Your task to perform on an android device: Set the phone to "Do not disturb". Image 0: 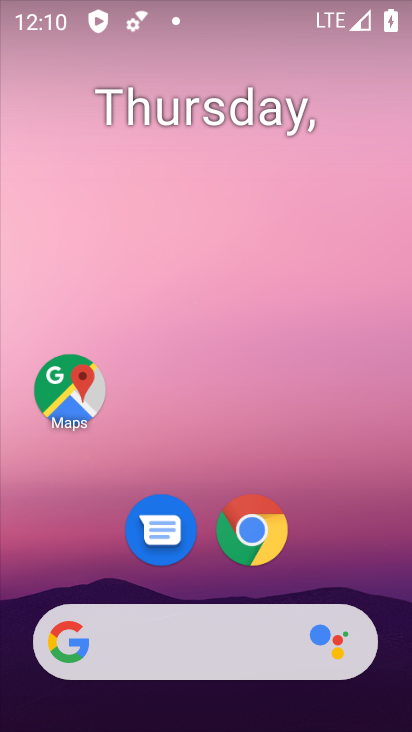
Step 0: drag from (195, 662) to (185, 235)
Your task to perform on an android device: Set the phone to "Do not disturb". Image 1: 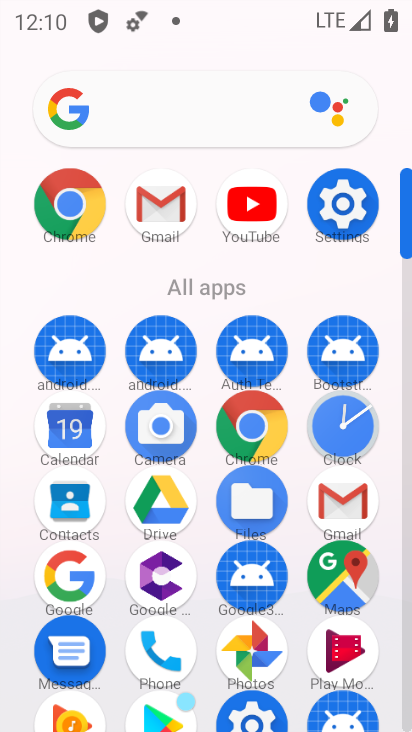
Step 1: click (339, 219)
Your task to perform on an android device: Set the phone to "Do not disturb". Image 2: 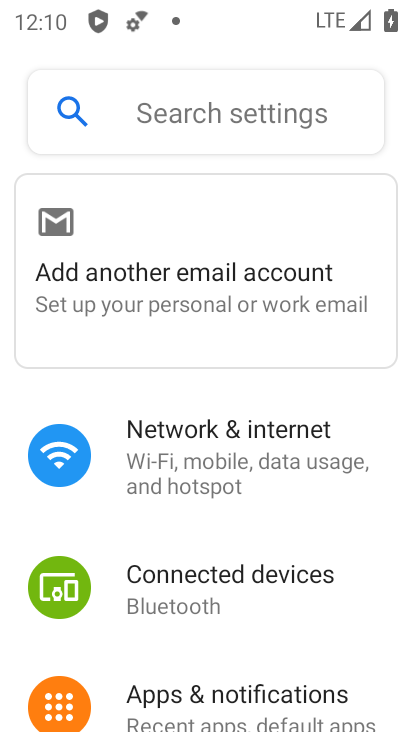
Step 2: drag from (175, 637) to (204, 73)
Your task to perform on an android device: Set the phone to "Do not disturb". Image 3: 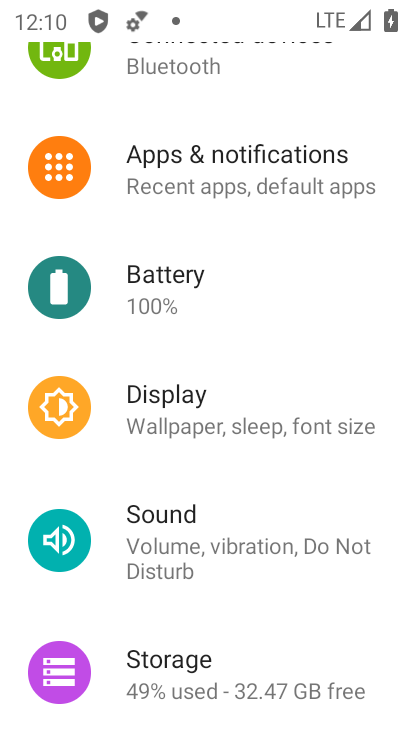
Step 3: click (176, 537)
Your task to perform on an android device: Set the phone to "Do not disturb". Image 4: 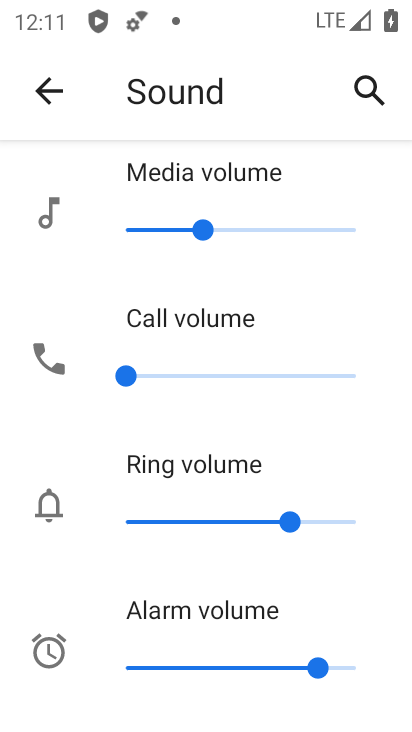
Step 4: drag from (225, 633) to (239, 178)
Your task to perform on an android device: Set the phone to "Do not disturb". Image 5: 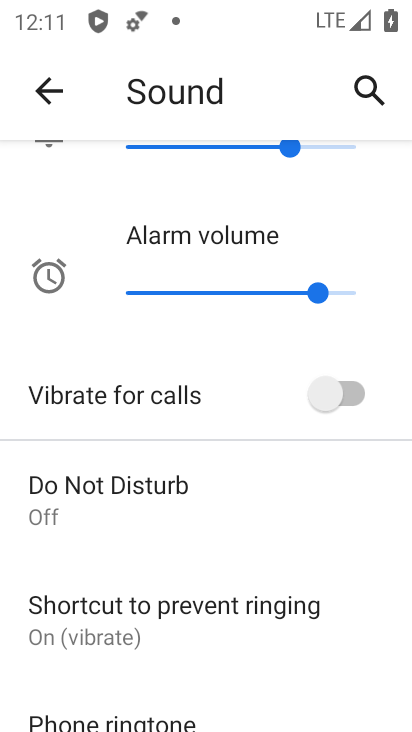
Step 5: click (163, 521)
Your task to perform on an android device: Set the phone to "Do not disturb". Image 6: 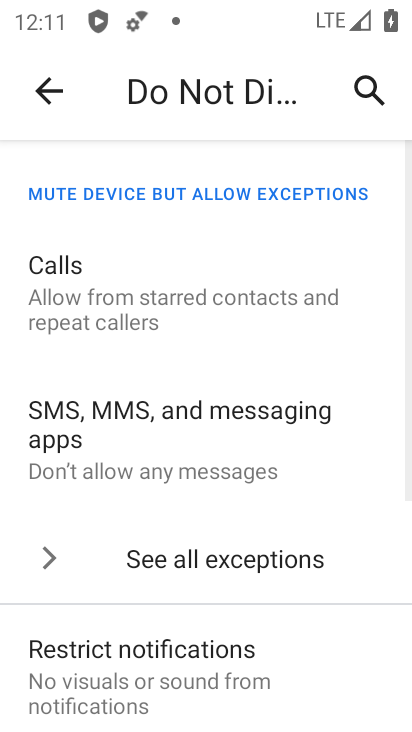
Step 6: drag from (222, 638) to (294, 8)
Your task to perform on an android device: Set the phone to "Do not disturb". Image 7: 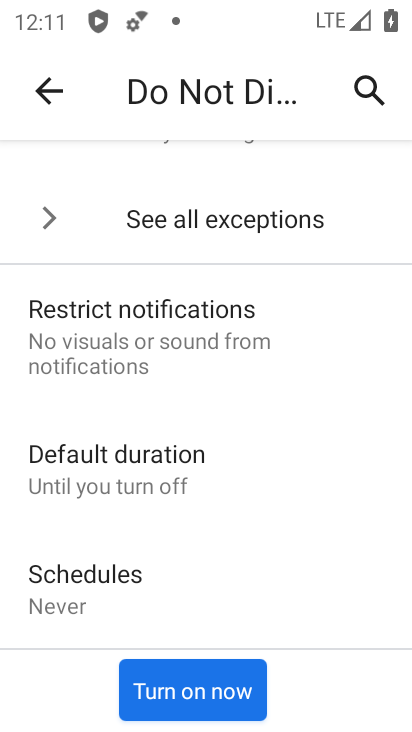
Step 7: click (191, 677)
Your task to perform on an android device: Set the phone to "Do not disturb". Image 8: 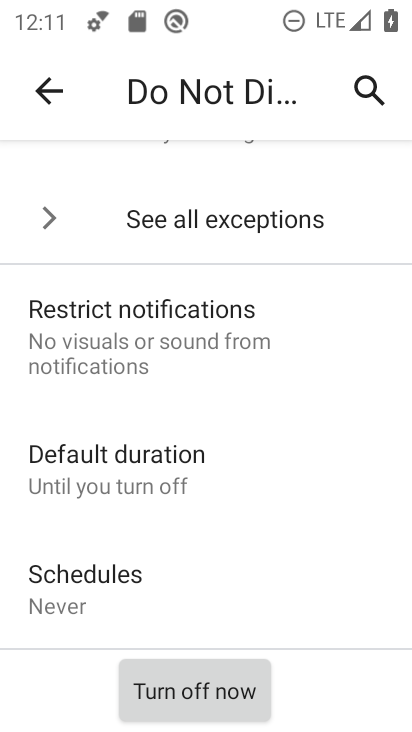
Step 8: task complete